Your task to perform on an android device: Set the phone to "Do not disturb". Image 0: 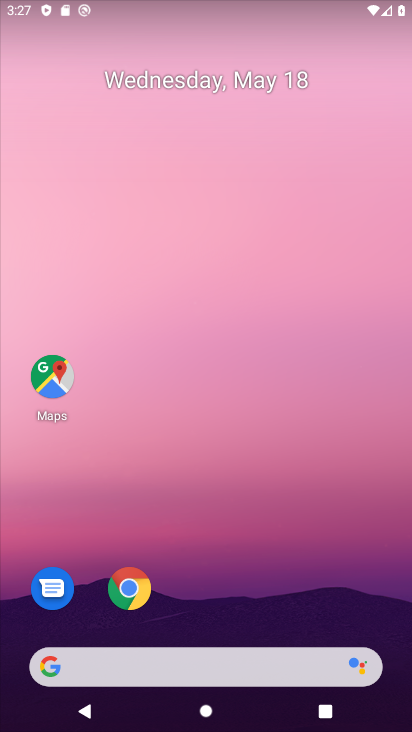
Step 0: drag from (228, 602) to (245, 200)
Your task to perform on an android device: Set the phone to "Do not disturb". Image 1: 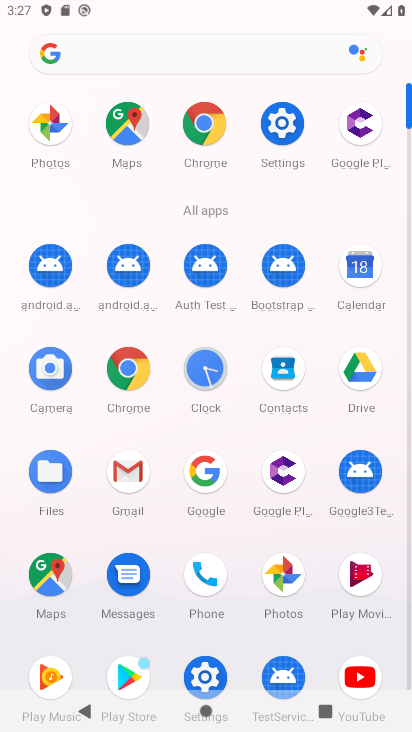
Step 1: click (268, 151)
Your task to perform on an android device: Set the phone to "Do not disturb". Image 2: 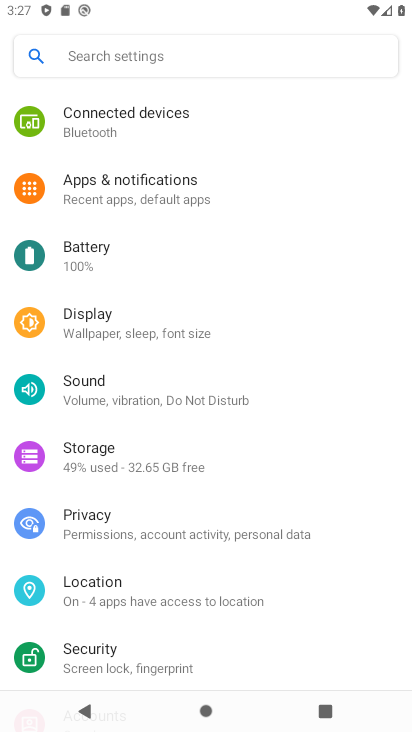
Step 2: click (176, 396)
Your task to perform on an android device: Set the phone to "Do not disturb". Image 3: 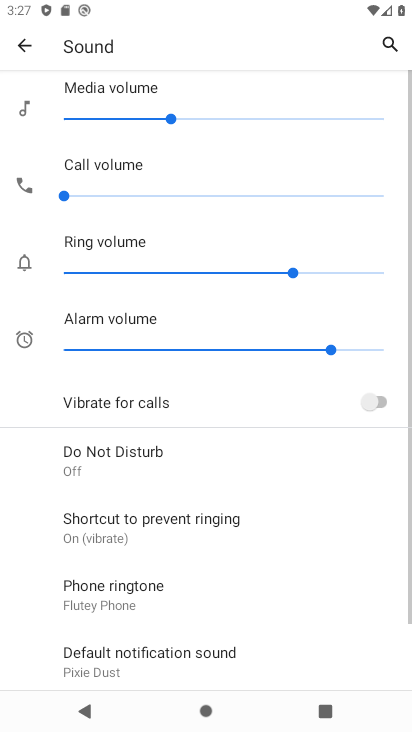
Step 3: click (180, 454)
Your task to perform on an android device: Set the phone to "Do not disturb". Image 4: 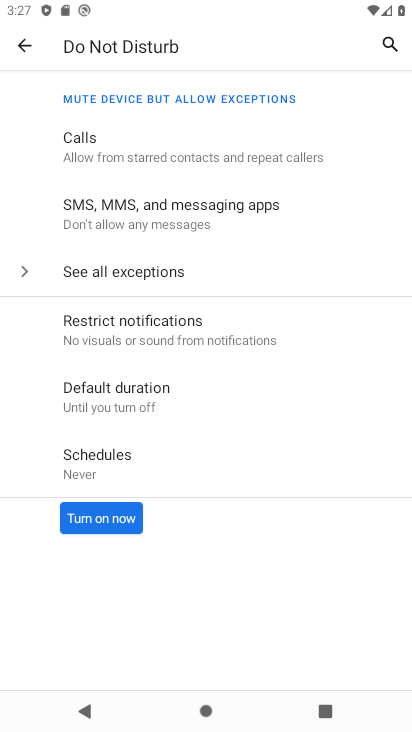
Step 4: click (89, 529)
Your task to perform on an android device: Set the phone to "Do not disturb". Image 5: 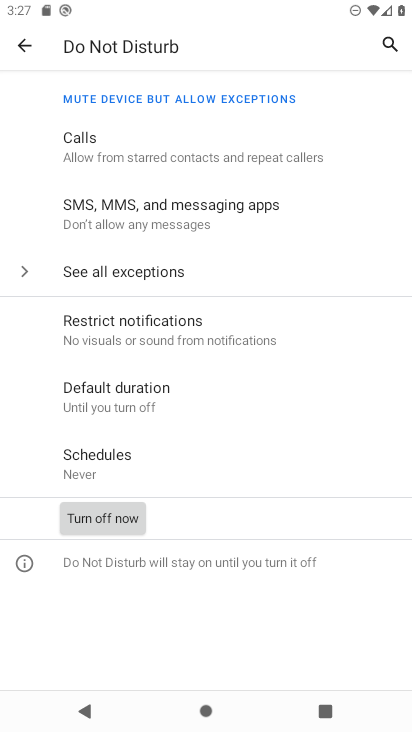
Step 5: task complete